Your task to perform on an android device: turn on the 24-hour format for clock Image 0: 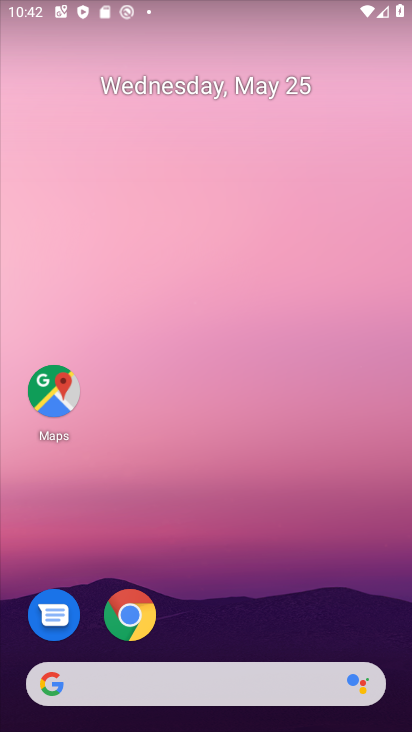
Step 0: drag from (269, 601) to (227, 206)
Your task to perform on an android device: turn on the 24-hour format for clock Image 1: 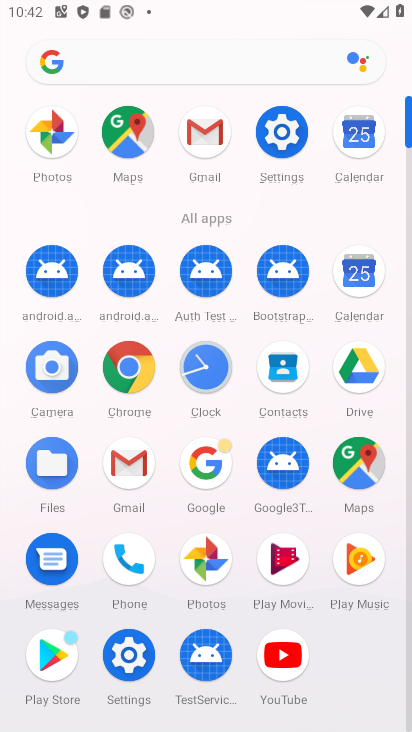
Step 1: click (201, 365)
Your task to perform on an android device: turn on the 24-hour format for clock Image 2: 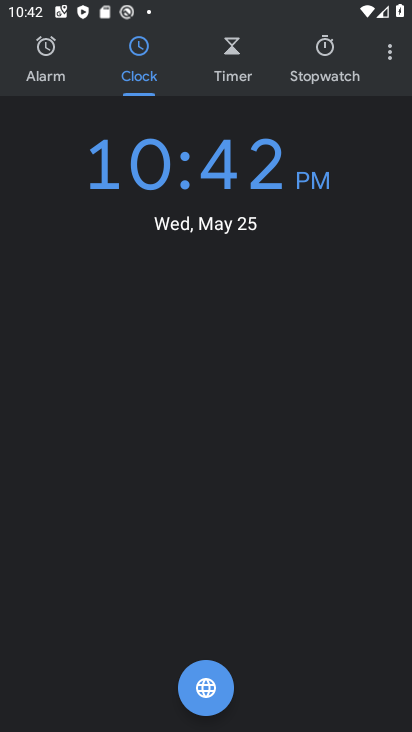
Step 2: click (396, 52)
Your task to perform on an android device: turn on the 24-hour format for clock Image 3: 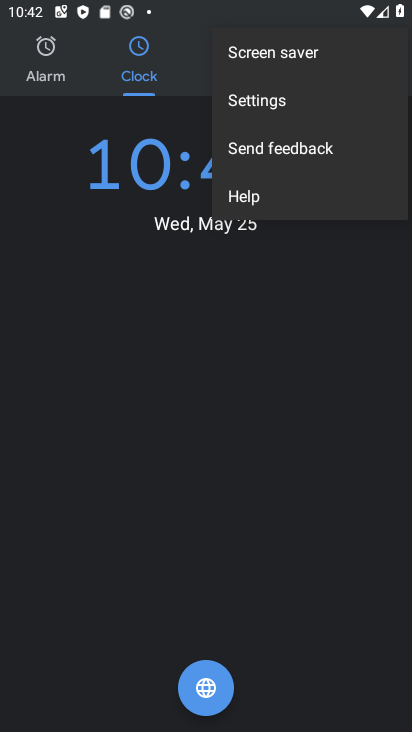
Step 3: click (249, 111)
Your task to perform on an android device: turn on the 24-hour format for clock Image 4: 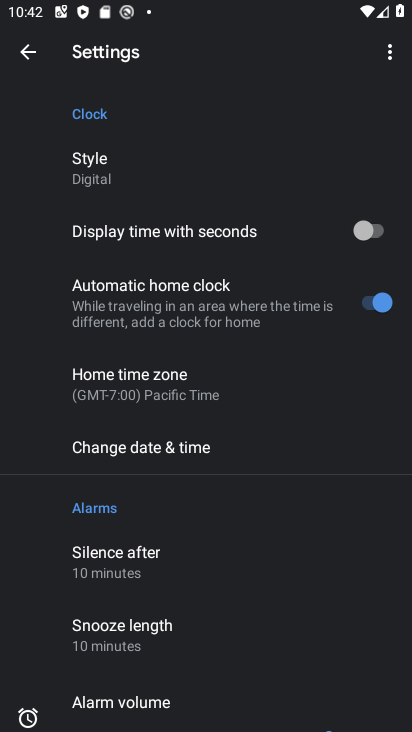
Step 4: drag from (233, 658) to (208, 263)
Your task to perform on an android device: turn on the 24-hour format for clock Image 5: 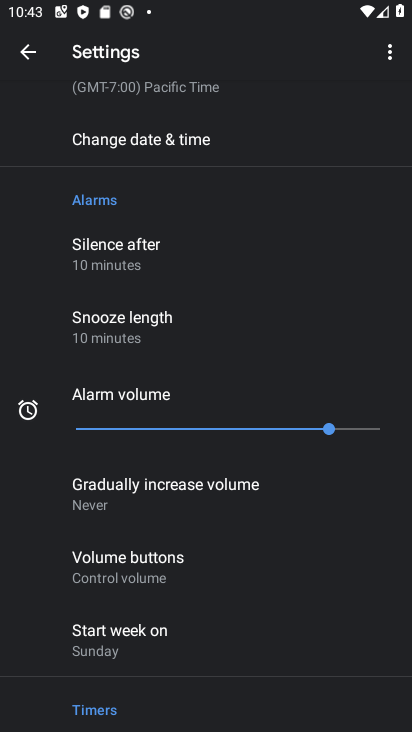
Step 5: drag from (301, 654) to (394, 297)
Your task to perform on an android device: turn on the 24-hour format for clock Image 6: 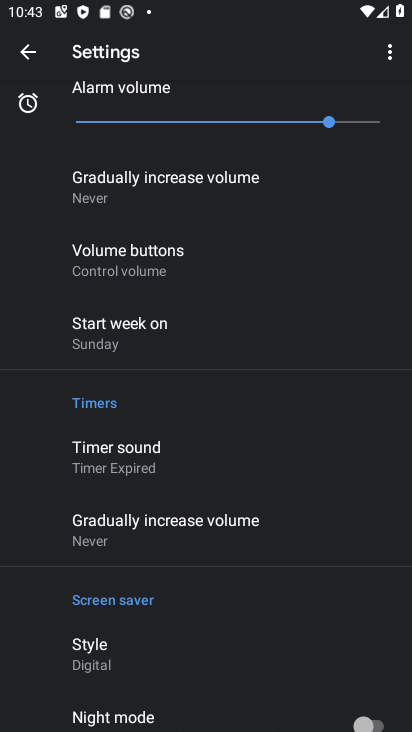
Step 6: drag from (305, 672) to (361, 197)
Your task to perform on an android device: turn on the 24-hour format for clock Image 7: 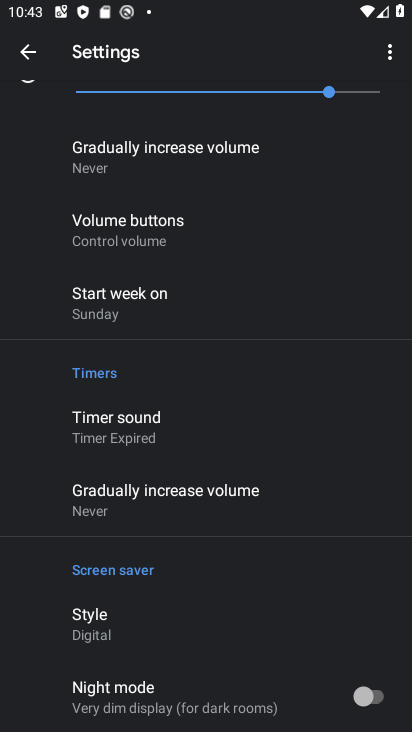
Step 7: drag from (295, 147) to (244, 720)
Your task to perform on an android device: turn on the 24-hour format for clock Image 8: 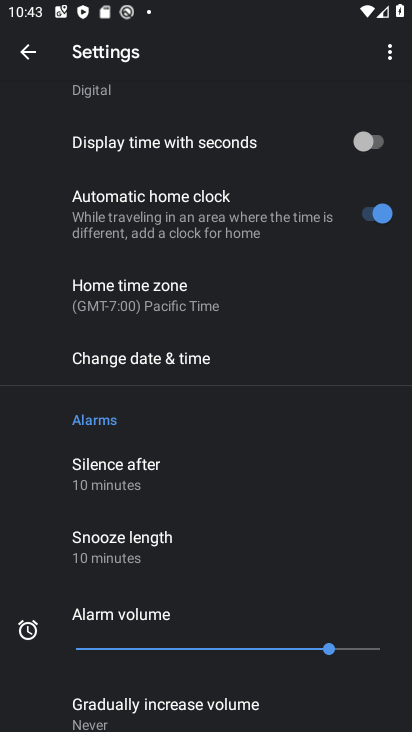
Step 8: drag from (260, 113) to (254, 731)
Your task to perform on an android device: turn on the 24-hour format for clock Image 9: 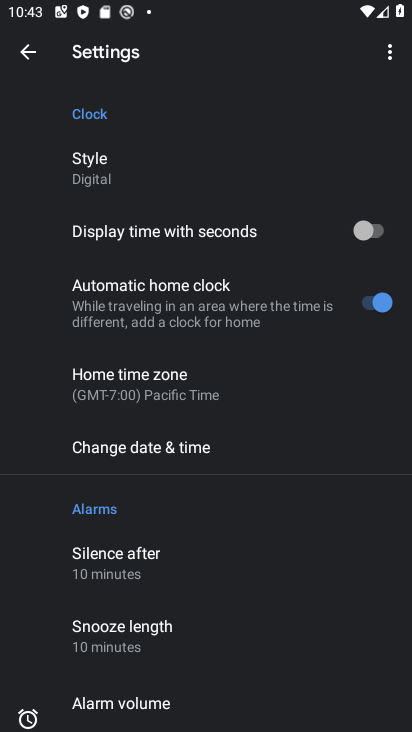
Step 9: click (170, 451)
Your task to perform on an android device: turn on the 24-hour format for clock Image 10: 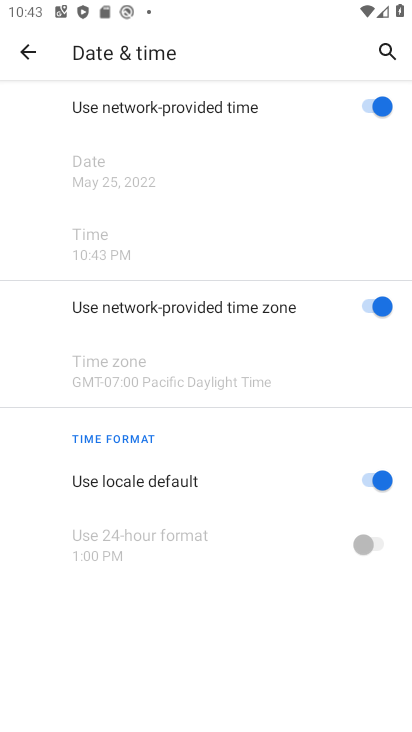
Step 10: click (375, 539)
Your task to perform on an android device: turn on the 24-hour format for clock Image 11: 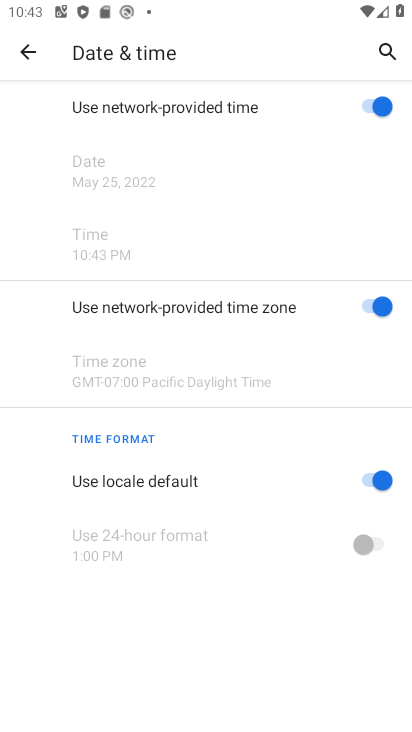
Step 11: click (361, 549)
Your task to perform on an android device: turn on the 24-hour format for clock Image 12: 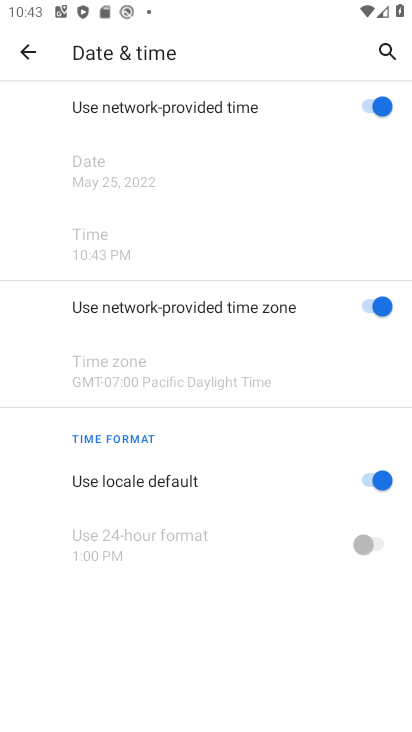
Step 12: click (376, 540)
Your task to perform on an android device: turn on the 24-hour format for clock Image 13: 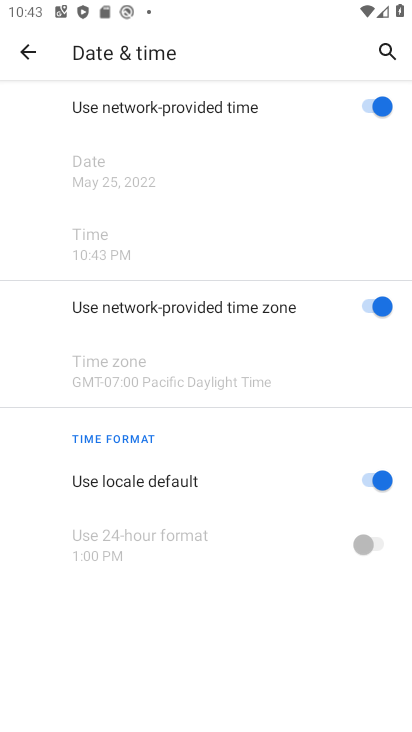
Step 13: click (376, 540)
Your task to perform on an android device: turn on the 24-hour format for clock Image 14: 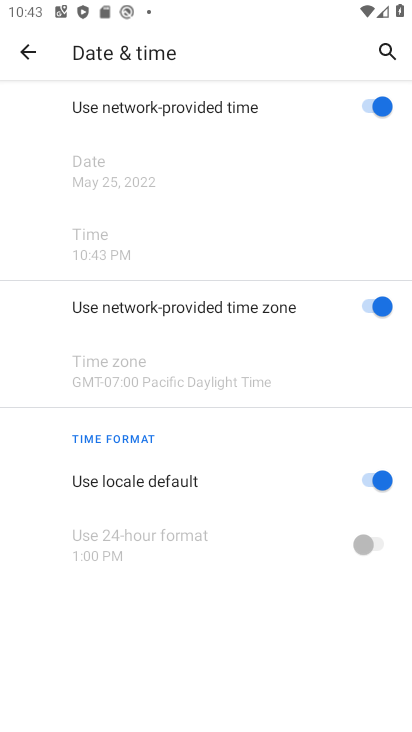
Step 14: click (376, 540)
Your task to perform on an android device: turn on the 24-hour format for clock Image 15: 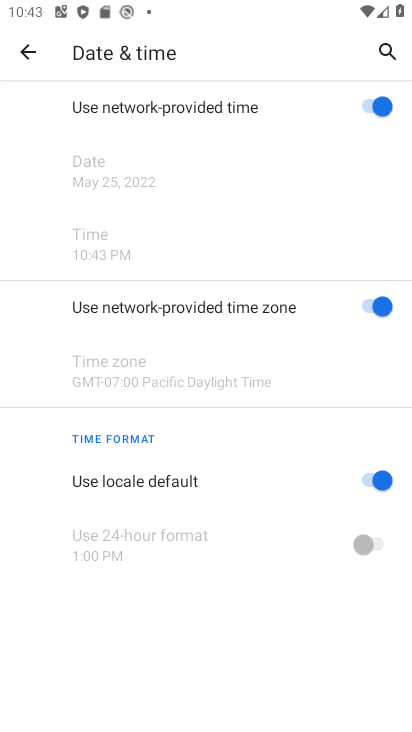
Step 15: click (376, 540)
Your task to perform on an android device: turn on the 24-hour format for clock Image 16: 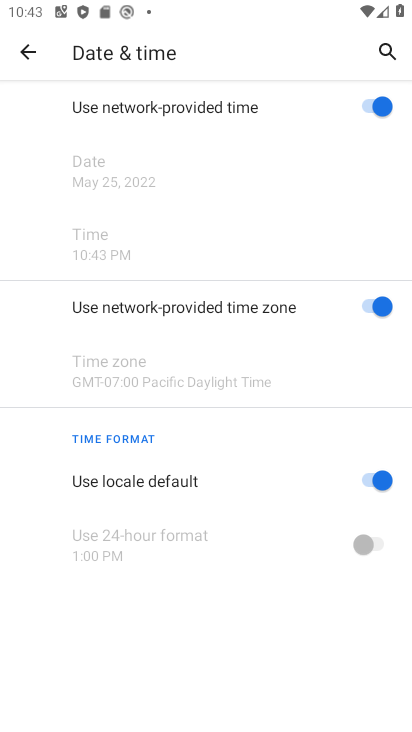
Step 16: click (376, 540)
Your task to perform on an android device: turn on the 24-hour format for clock Image 17: 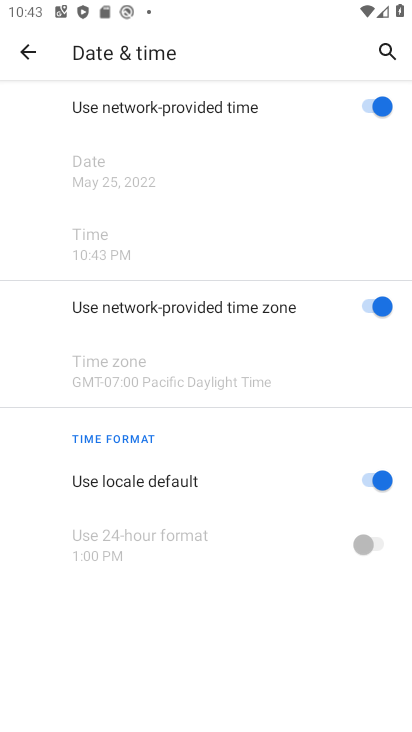
Step 17: drag from (356, 540) to (406, 536)
Your task to perform on an android device: turn on the 24-hour format for clock Image 18: 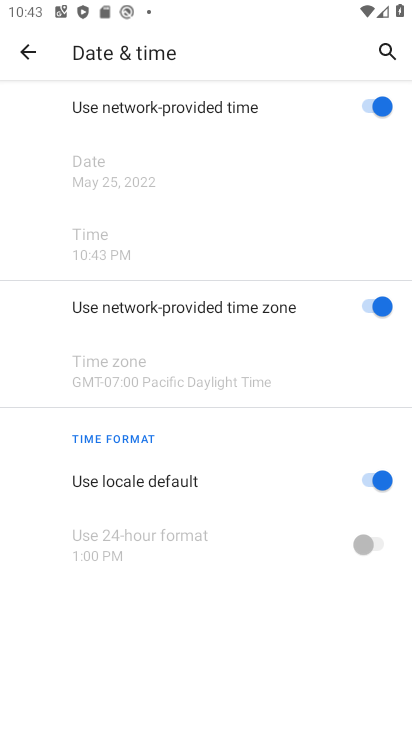
Step 18: drag from (358, 526) to (398, 526)
Your task to perform on an android device: turn on the 24-hour format for clock Image 19: 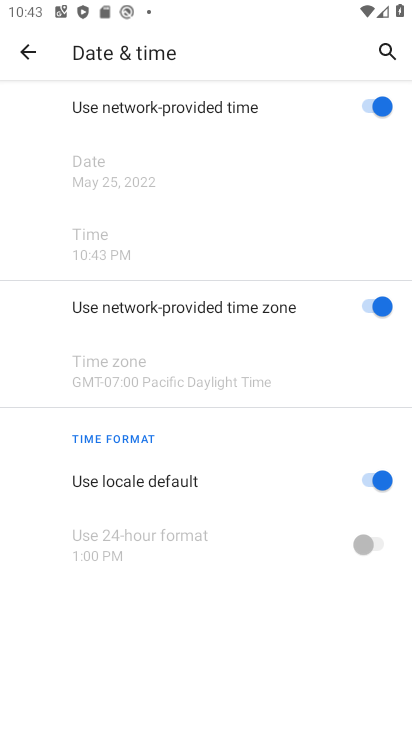
Step 19: click (390, 479)
Your task to perform on an android device: turn on the 24-hour format for clock Image 20: 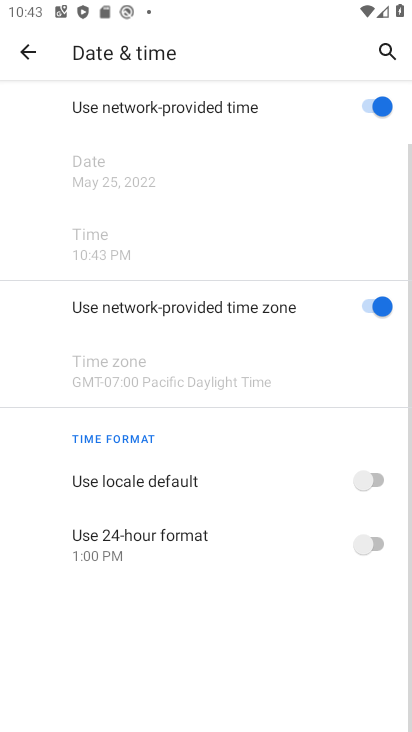
Step 20: click (373, 548)
Your task to perform on an android device: turn on the 24-hour format for clock Image 21: 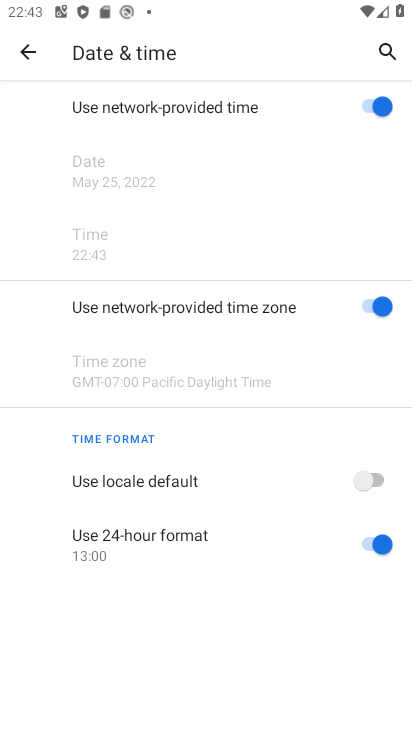
Step 21: task complete